Your task to perform on an android device: Open Yahoo.com Image 0: 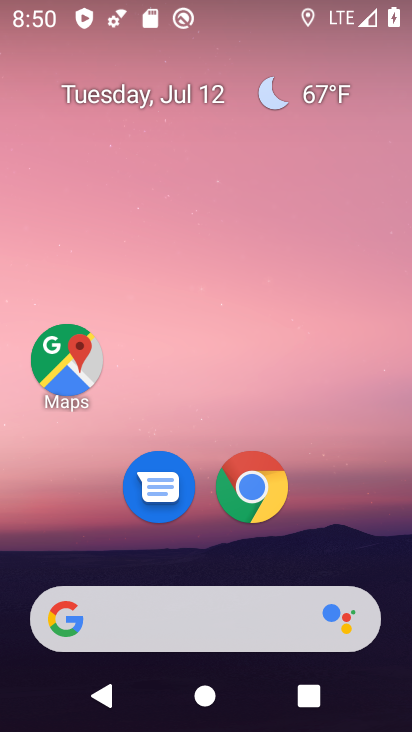
Step 0: click (236, 467)
Your task to perform on an android device: Open Yahoo.com Image 1: 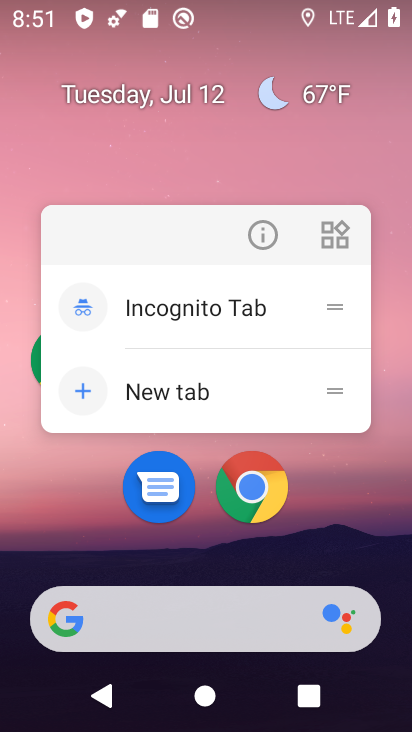
Step 1: click (254, 482)
Your task to perform on an android device: Open Yahoo.com Image 2: 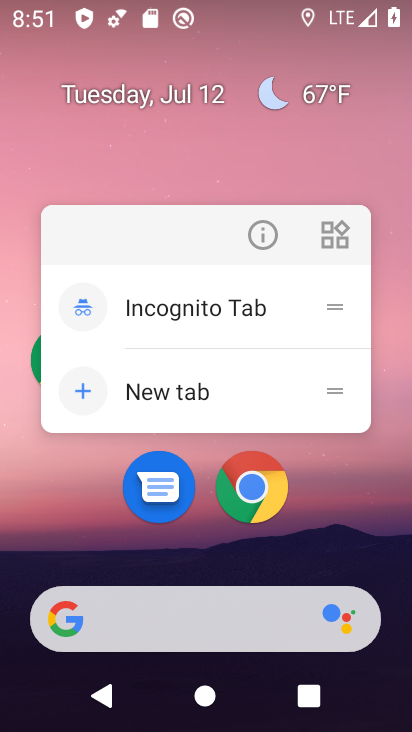
Step 2: click (253, 476)
Your task to perform on an android device: Open Yahoo.com Image 3: 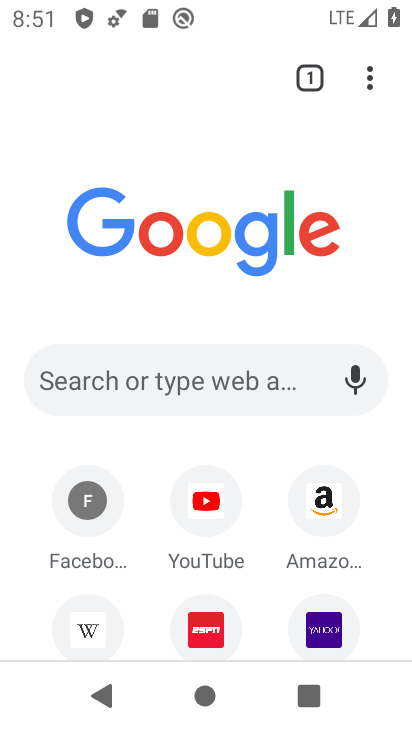
Step 3: click (340, 625)
Your task to perform on an android device: Open Yahoo.com Image 4: 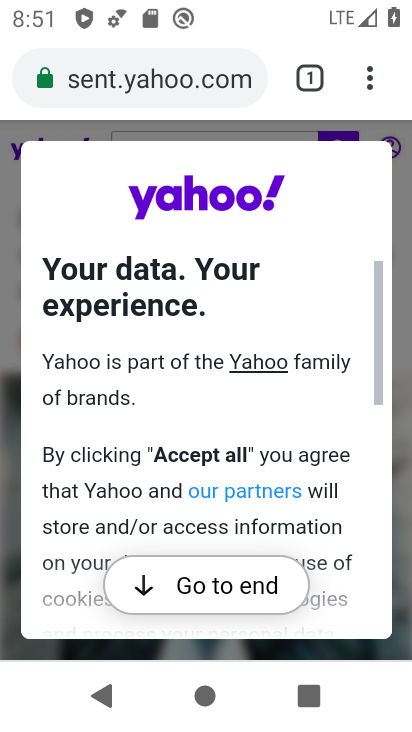
Step 4: task complete